Your task to perform on an android device: change keyboard looks Image 0: 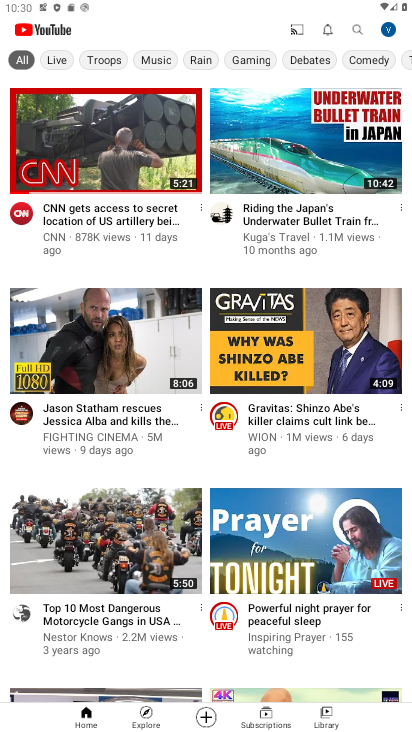
Step 0: press back button
Your task to perform on an android device: change keyboard looks Image 1: 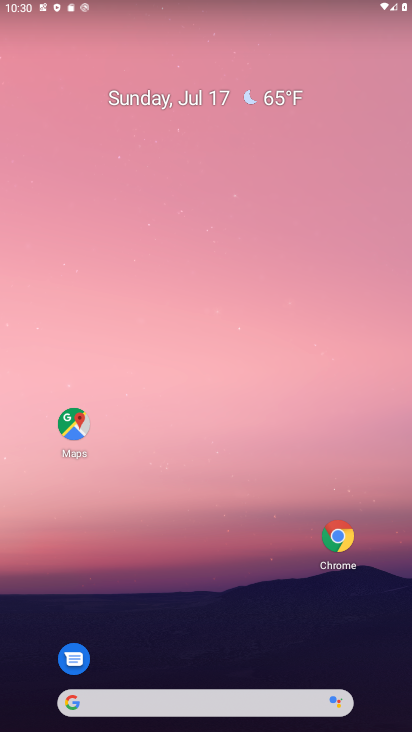
Step 1: drag from (192, 710) to (142, 133)
Your task to perform on an android device: change keyboard looks Image 2: 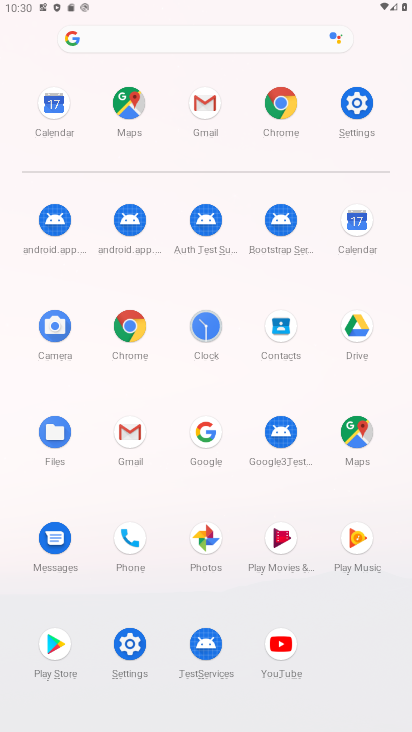
Step 2: click (138, 635)
Your task to perform on an android device: change keyboard looks Image 3: 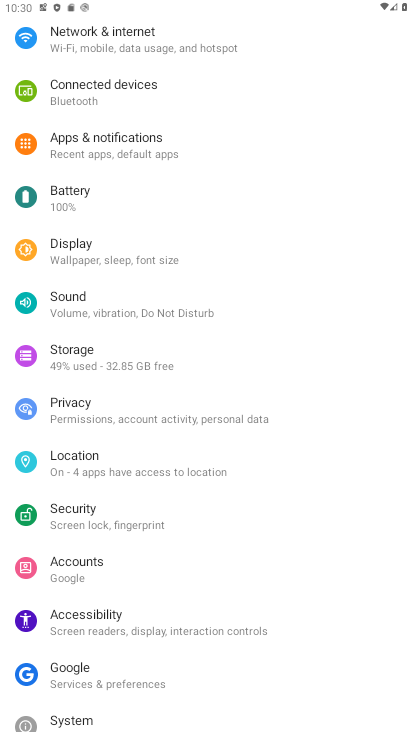
Step 3: drag from (96, 673) to (82, 216)
Your task to perform on an android device: change keyboard looks Image 4: 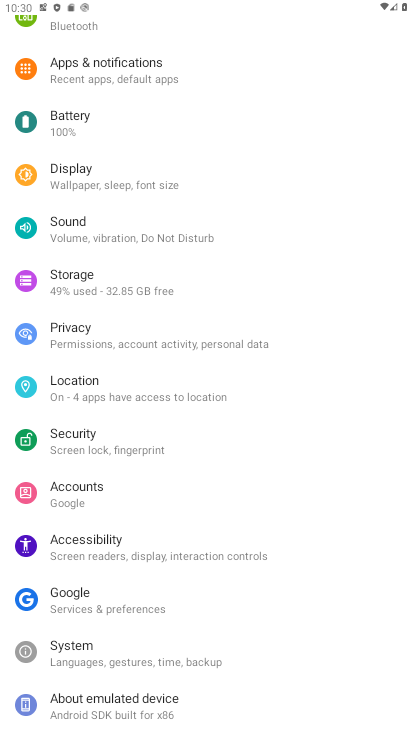
Step 4: click (95, 641)
Your task to perform on an android device: change keyboard looks Image 5: 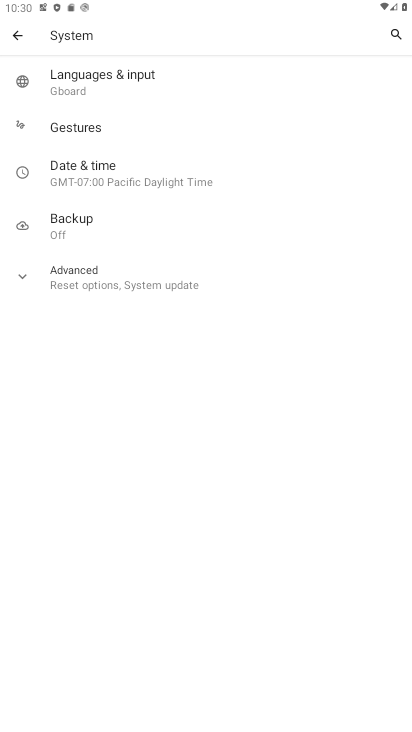
Step 5: click (104, 87)
Your task to perform on an android device: change keyboard looks Image 6: 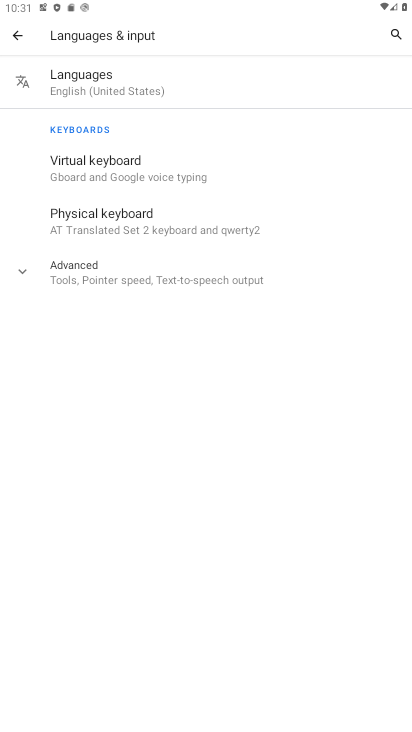
Step 6: click (109, 165)
Your task to perform on an android device: change keyboard looks Image 7: 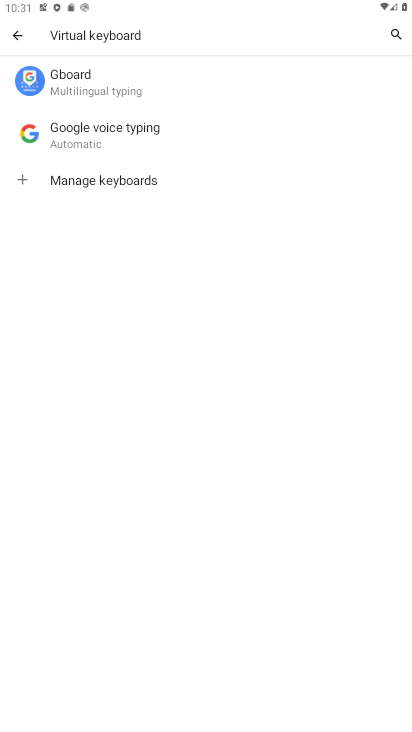
Step 7: click (90, 92)
Your task to perform on an android device: change keyboard looks Image 8: 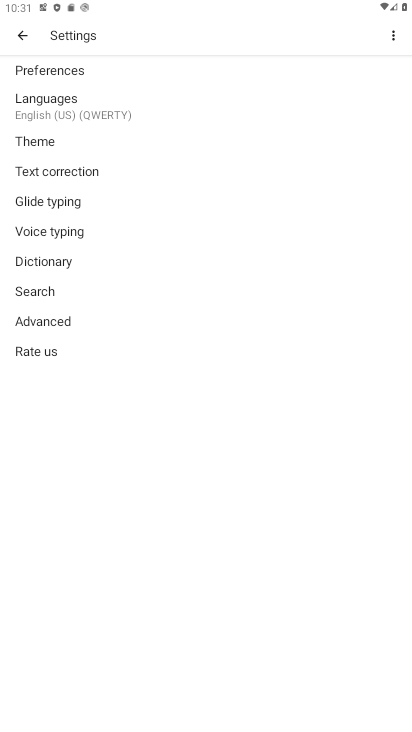
Step 8: click (45, 146)
Your task to perform on an android device: change keyboard looks Image 9: 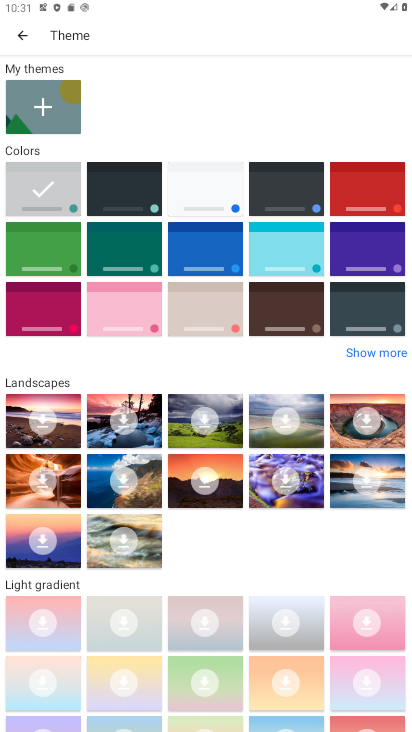
Step 9: click (135, 308)
Your task to perform on an android device: change keyboard looks Image 10: 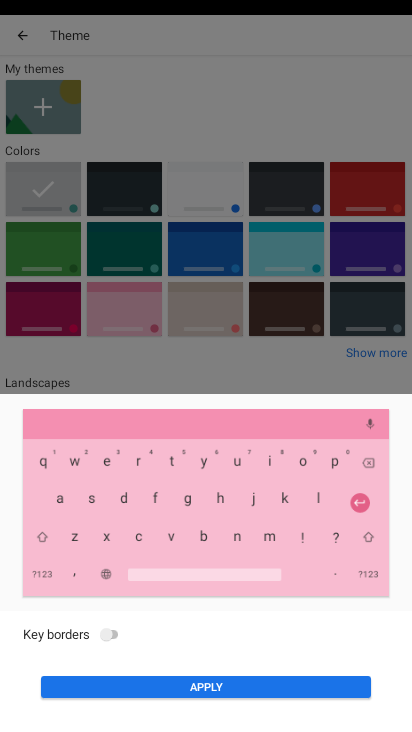
Step 10: click (217, 676)
Your task to perform on an android device: change keyboard looks Image 11: 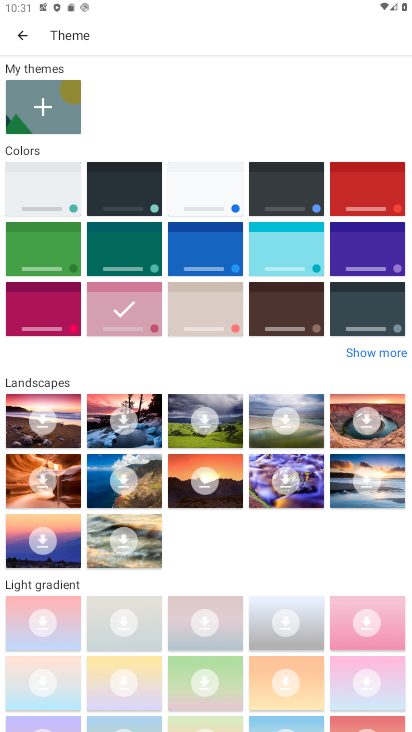
Step 11: task complete